Your task to perform on an android device: Show me recent news Image 0: 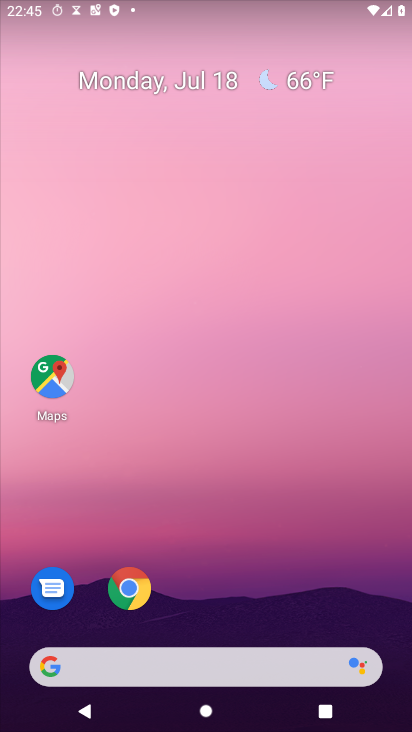
Step 0: click (206, 665)
Your task to perform on an android device: Show me recent news Image 1: 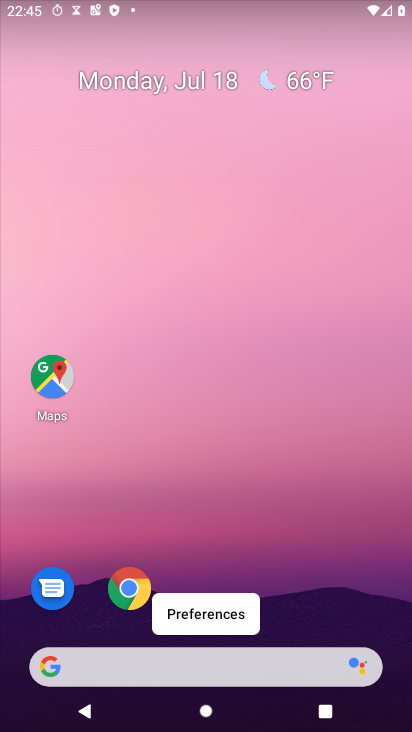
Step 1: click (157, 665)
Your task to perform on an android device: Show me recent news Image 2: 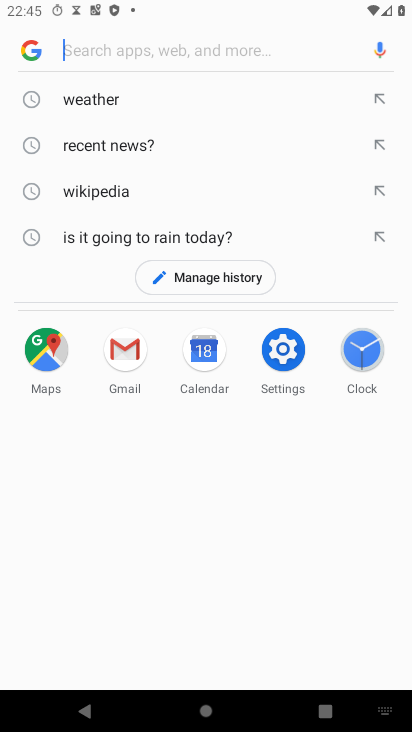
Step 2: click (120, 147)
Your task to perform on an android device: Show me recent news Image 3: 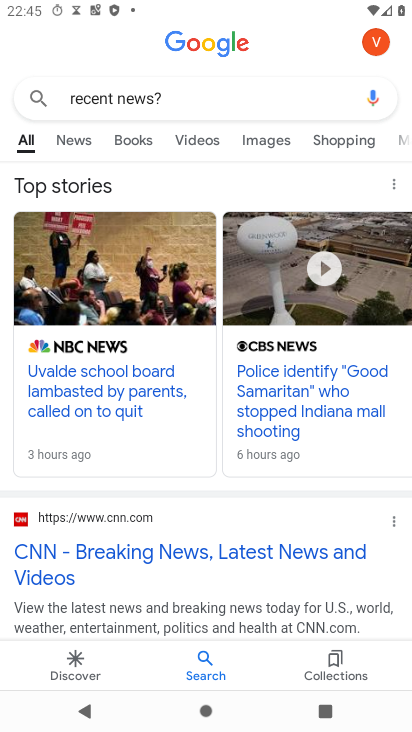
Step 3: click (80, 142)
Your task to perform on an android device: Show me recent news Image 4: 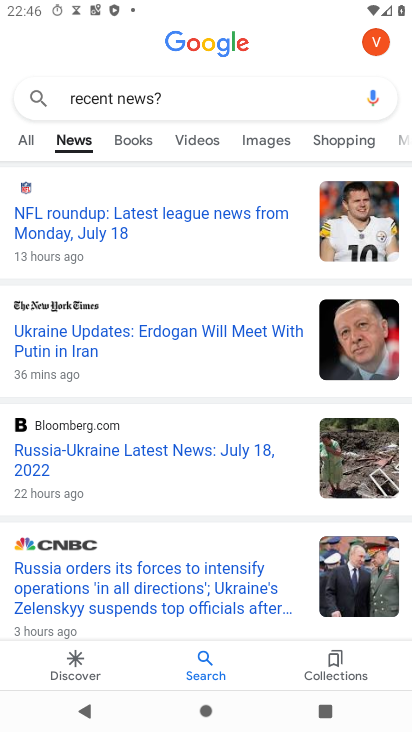
Step 4: task complete